Your task to perform on an android device: Open location settings Image 0: 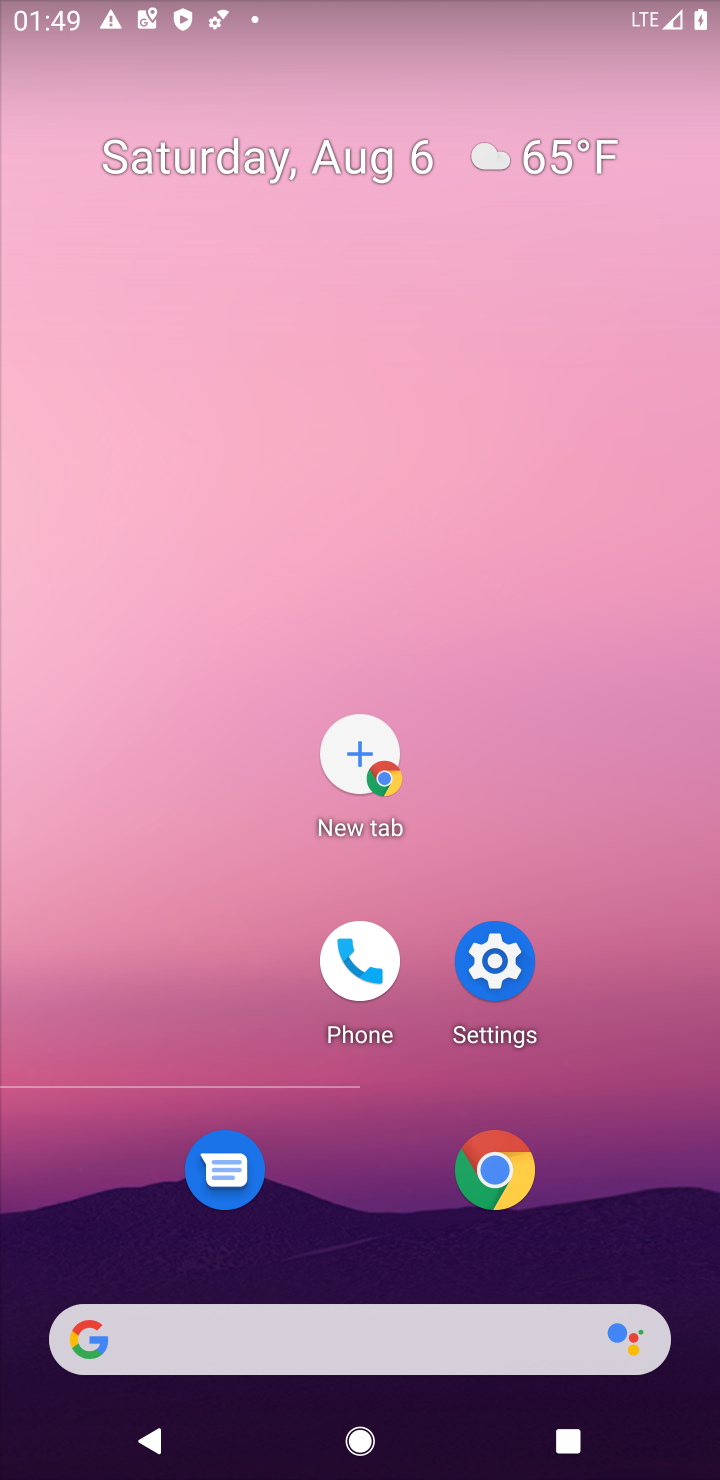
Step 0: click (506, 978)
Your task to perform on an android device: Open location settings Image 1: 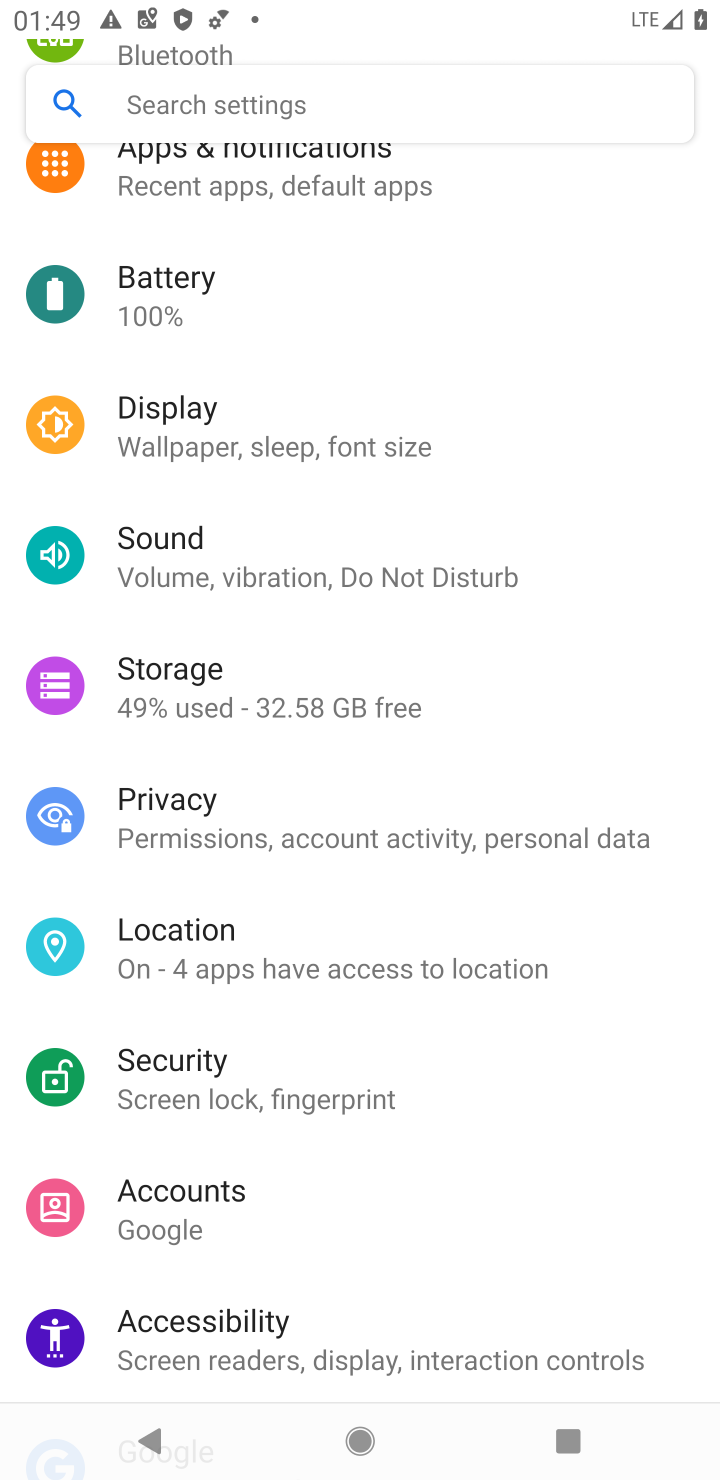
Step 1: click (292, 944)
Your task to perform on an android device: Open location settings Image 2: 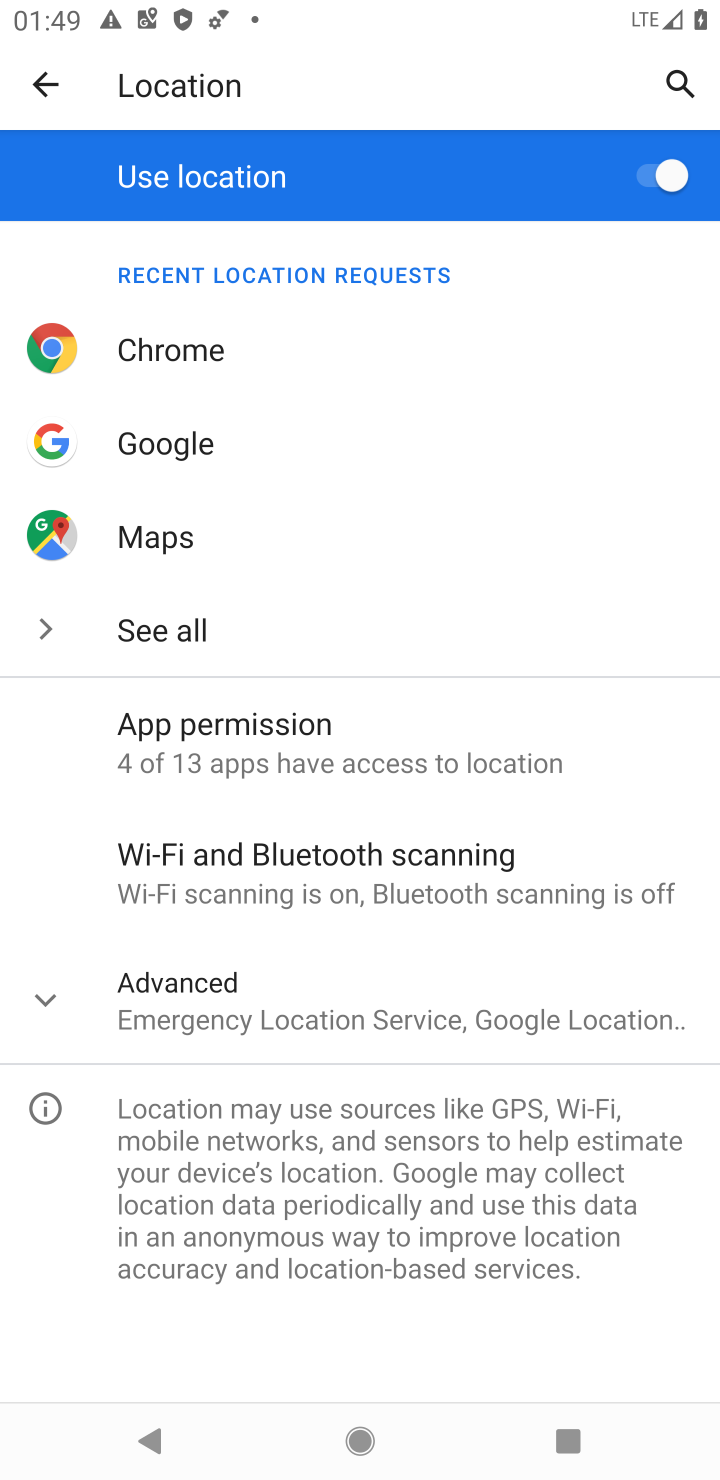
Step 2: task complete